Your task to perform on an android device: Open the phone app and click the voicemail tab. Image 0: 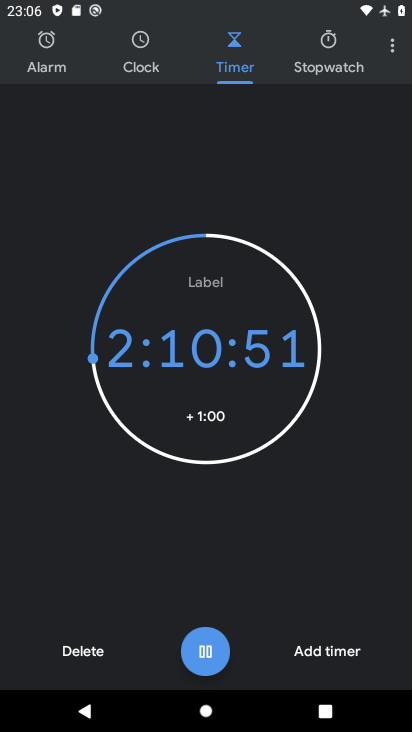
Step 0: press back button
Your task to perform on an android device: Open the phone app and click the voicemail tab. Image 1: 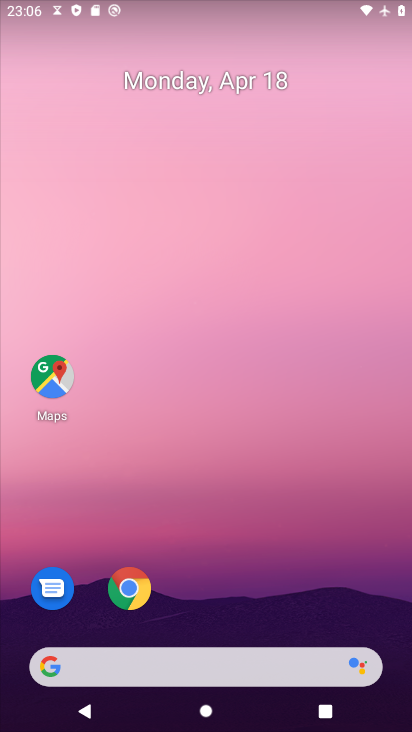
Step 1: drag from (246, 576) to (132, 60)
Your task to perform on an android device: Open the phone app and click the voicemail tab. Image 2: 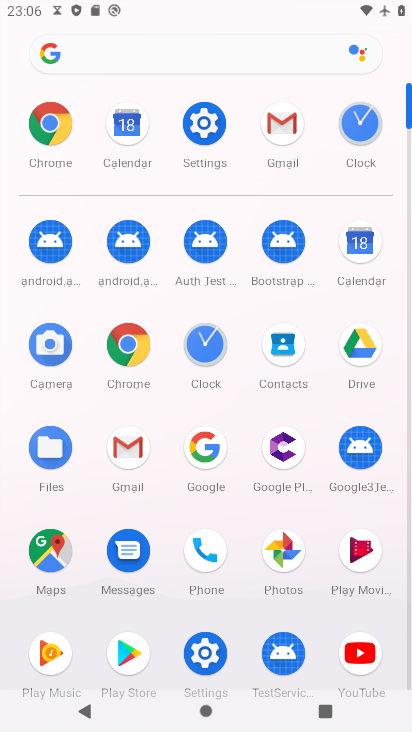
Step 2: drag from (3, 438) to (16, 222)
Your task to perform on an android device: Open the phone app and click the voicemail tab. Image 3: 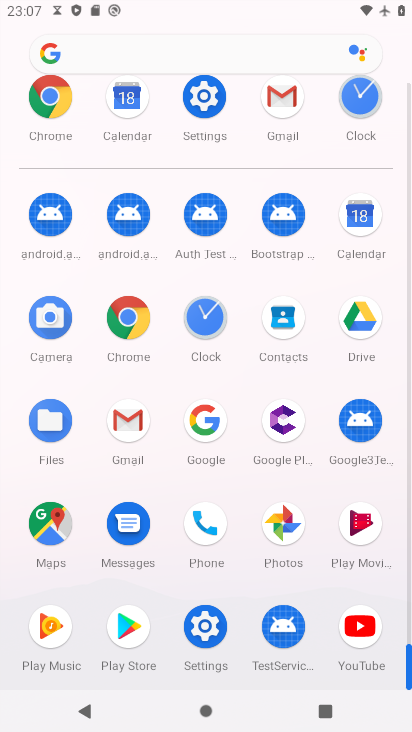
Step 3: click (199, 517)
Your task to perform on an android device: Open the phone app and click the voicemail tab. Image 4: 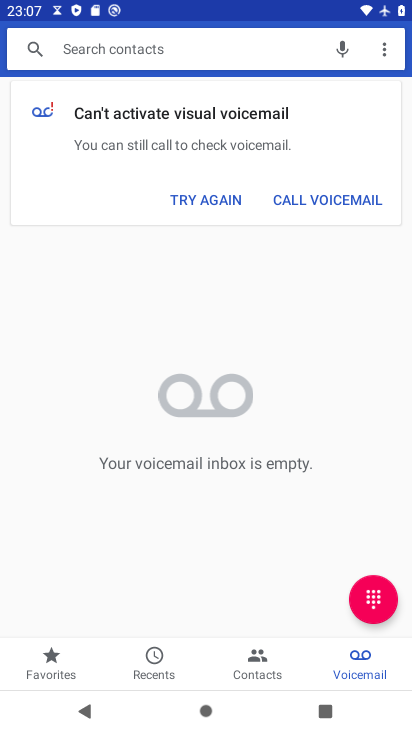
Step 4: task complete